Your task to perform on an android device: Is it going to rain today? Image 0: 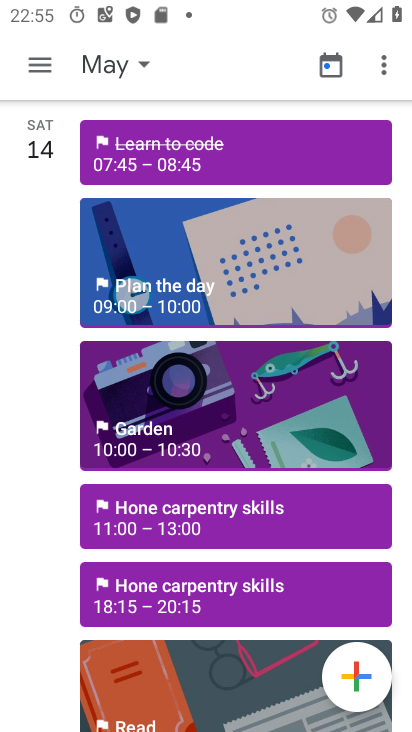
Step 0: click (30, 65)
Your task to perform on an android device: Is it going to rain today? Image 1: 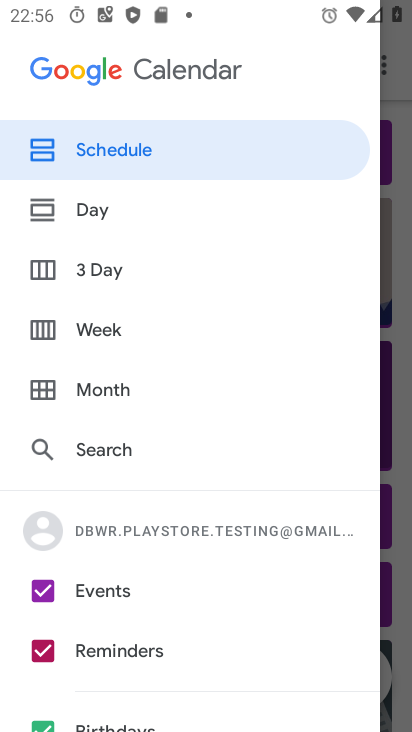
Step 1: press home button
Your task to perform on an android device: Is it going to rain today? Image 2: 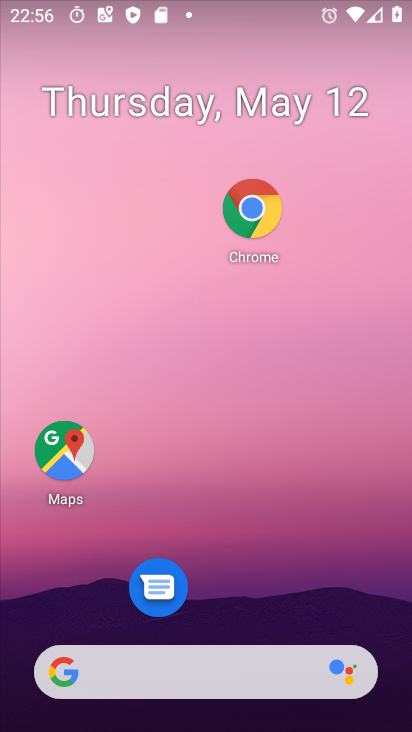
Step 2: click (322, 242)
Your task to perform on an android device: Is it going to rain today? Image 3: 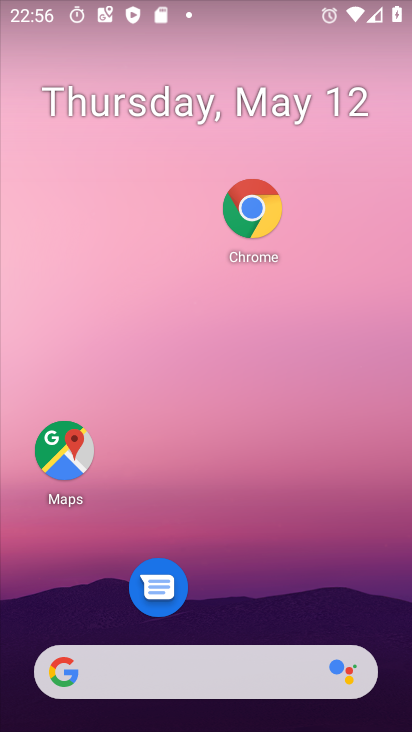
Step 3: click (261, 202)
Your task to perform on an android device: Is it going to rain today? Image 4: 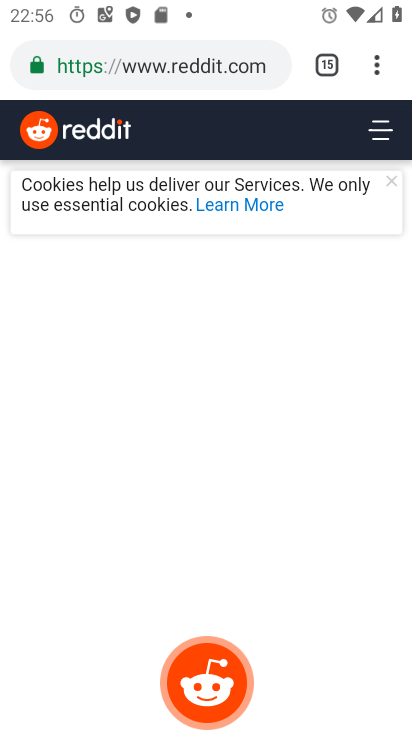
Step 4: click (363, 64)
Your task to perform on an android device: Is it going to rain today? Image 5: 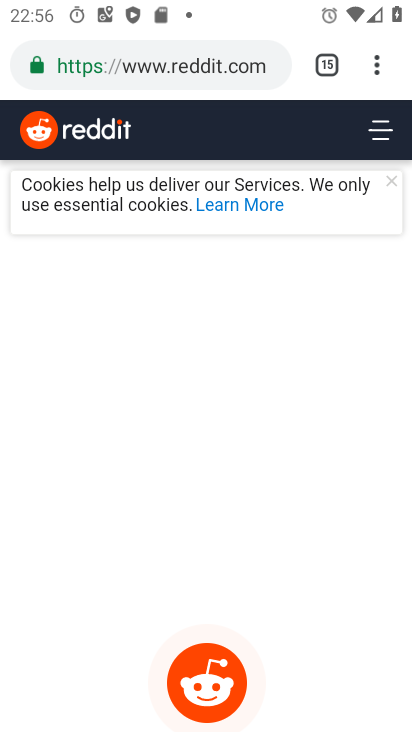
Step 5: click (351, 59)
Your task to perform on an android device: Is it going to rain today? Image 6: 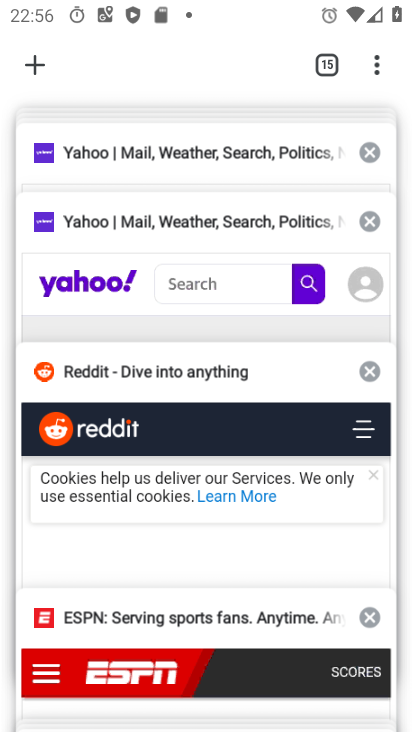
Step 6: click (37, 57)
Your task to perform on an android device: Is it going to rain today? Image 7: 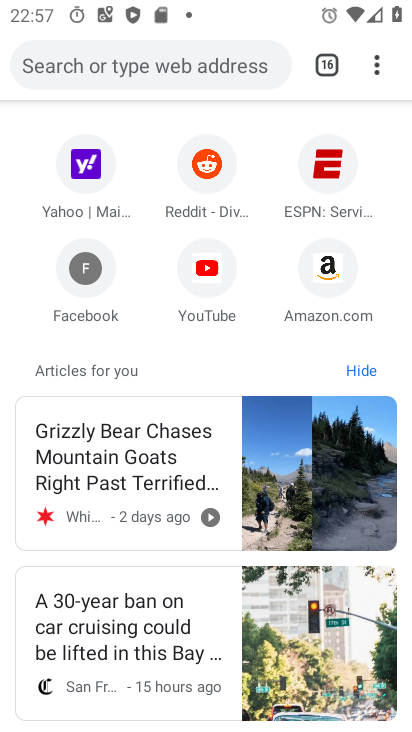
Step 7: click (174, 59)
Your task to perform on an android device: Is it going to rain today? Image 8: 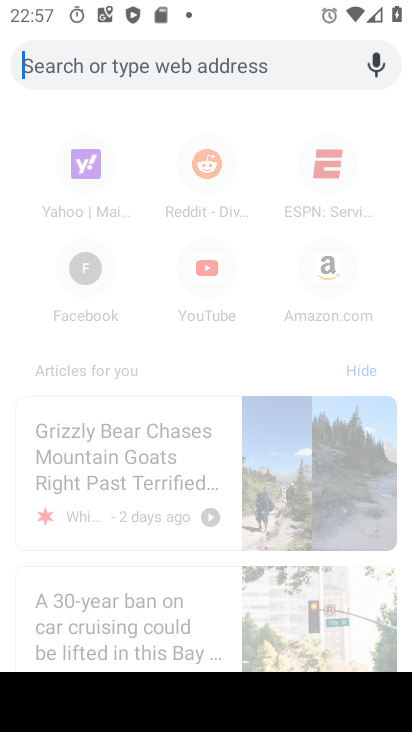
Step 8: type "Is it going to rain today?"
Your task to perform on an android device: Is it going to rain today? Image 9: 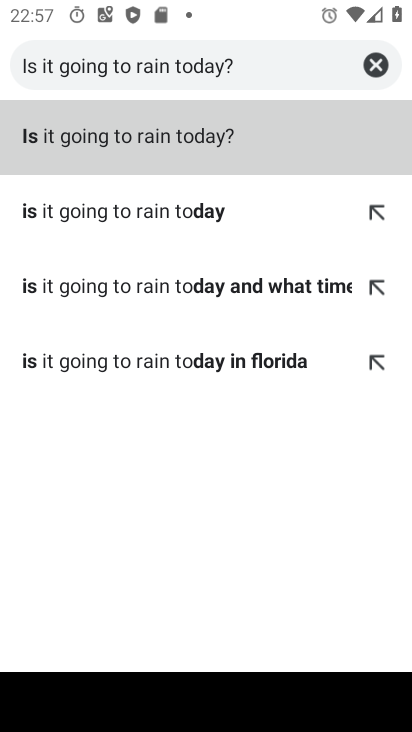
Step 9: click (197, 148)
Your task to perform on an android device: Is it going to rain today? Image 10: 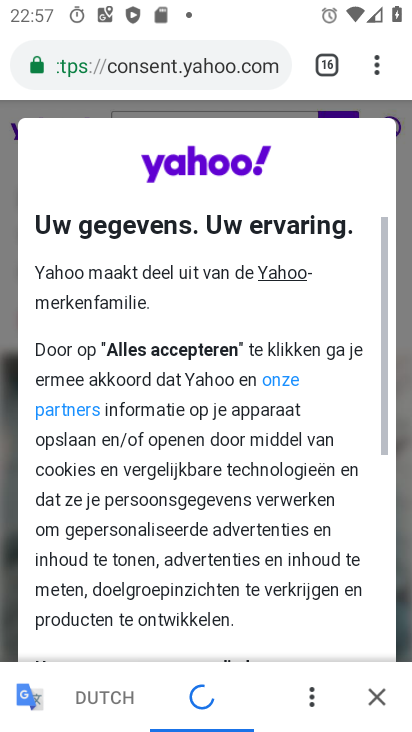
Step 10: click (378, 702)
Your task to perform on an android device: Is it going to rain today? Image 11: 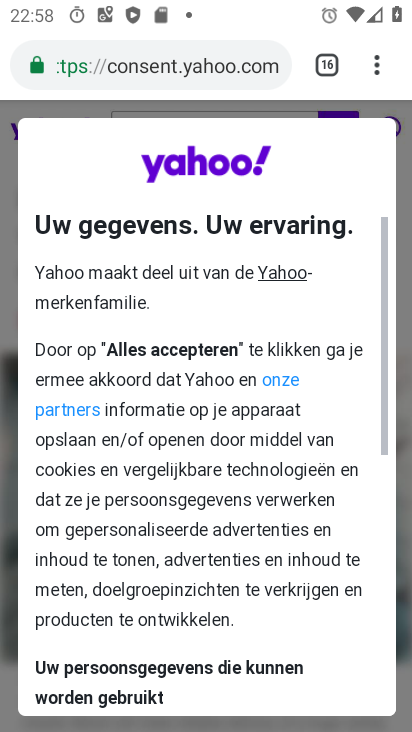
Step 11: task complete